Your task to perform on an android device: change notifications settings Image 0: 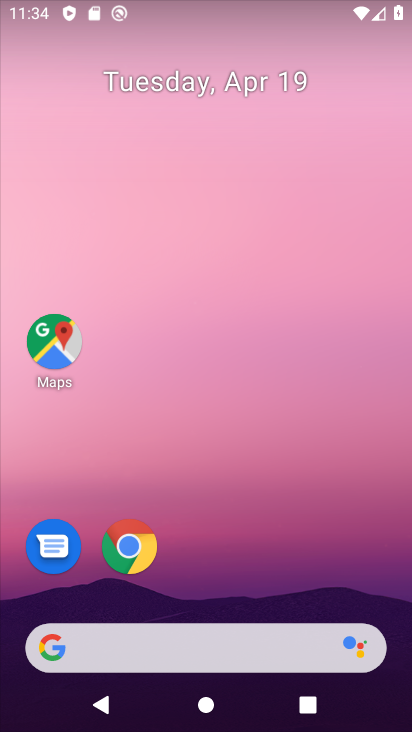
Step 0: drag from (252, 213) to (227, 39)
Your task to perform on an android device: change notifications settings Image 1: 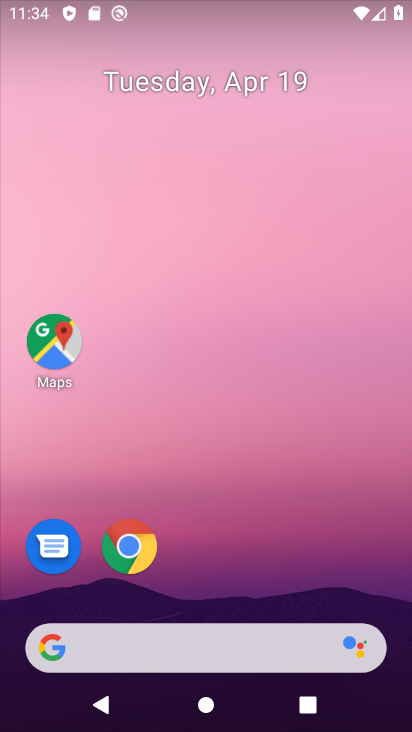
Step 1: drag from (292, 595) to (213, 0)
Your task to perform on an android device: change notifications settings Image 2: 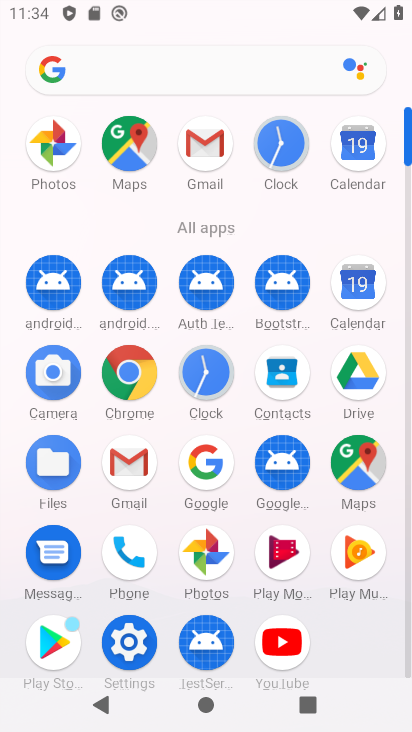
Step 2: click (133, 642)
Your task to perform on an android device: change notifications settings Image 3: 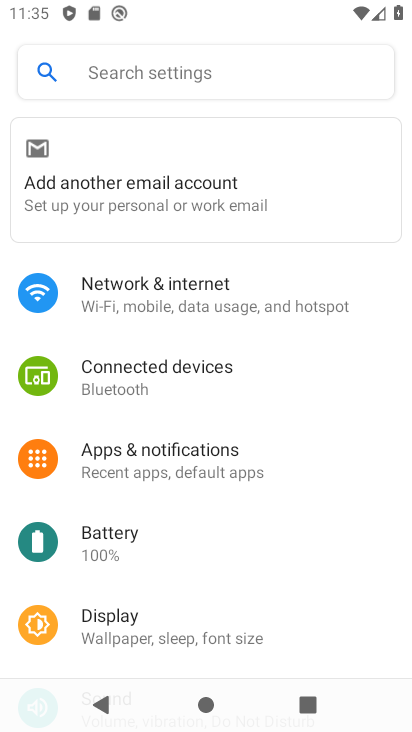
Step 3: click (176, 467)
Your task to perform on an android device: change notifications settings Image 4: 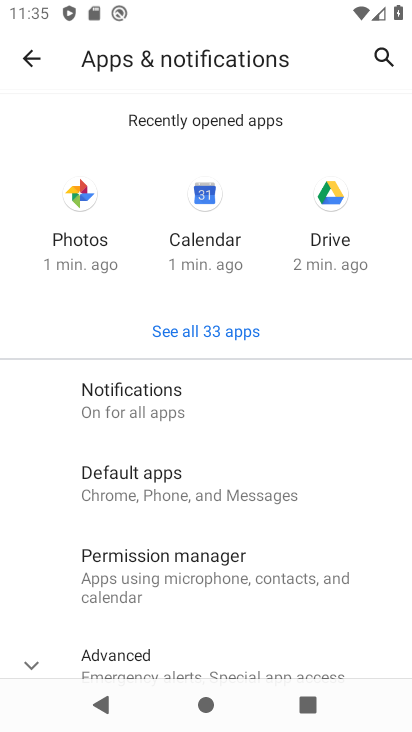
Step 4: drag from (237, 567) to (245, 388)
Your task to perform on an android device: change notifications settings Image 5: 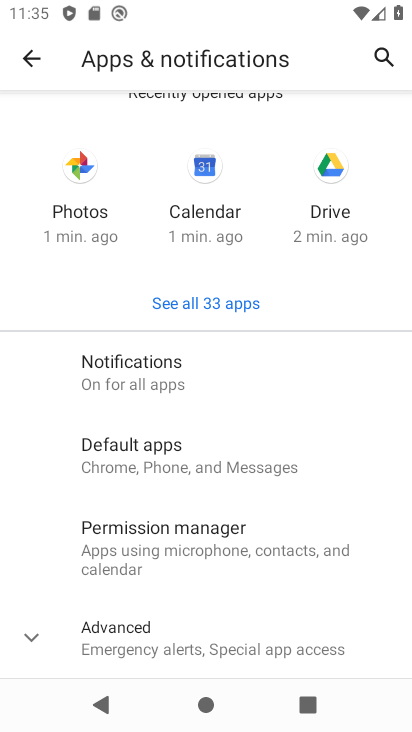
Step 5: click (167, 369)
Your task to perform on an android device: change notifications settings Image 6: 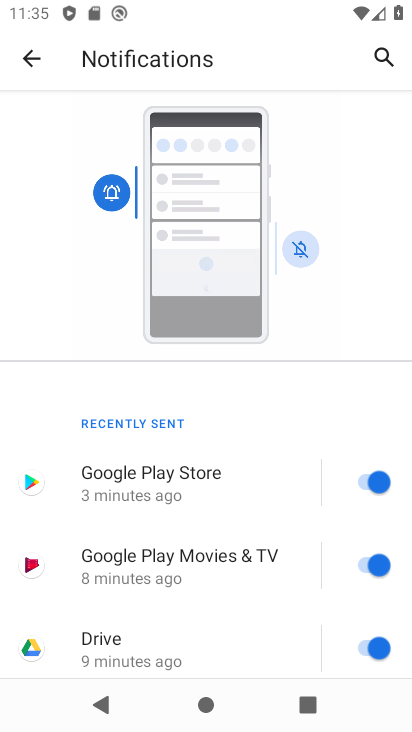
Step 6: drag from (320, 636) to (313, 300)
Your task to perform on an android device: change notifications settings Image 7: 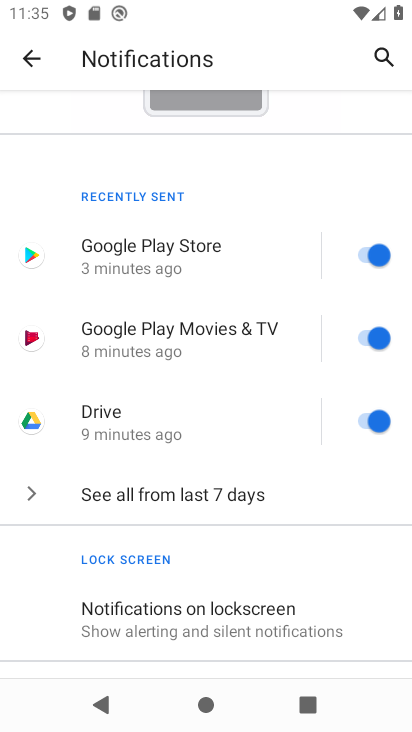
Step 7: click (361, 334)
Your task to perform on an android device: change notifications settings Image 8: 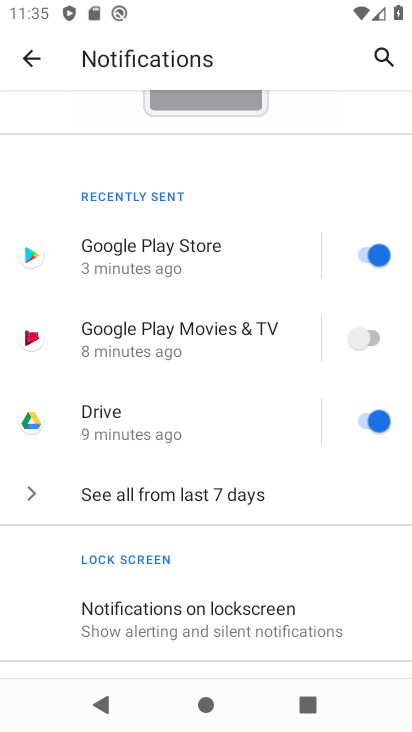
Step 8: task complete